Your task to perform on an android device: open app "LinkedIn" (install if not already installed) and go to login screen Image 0: 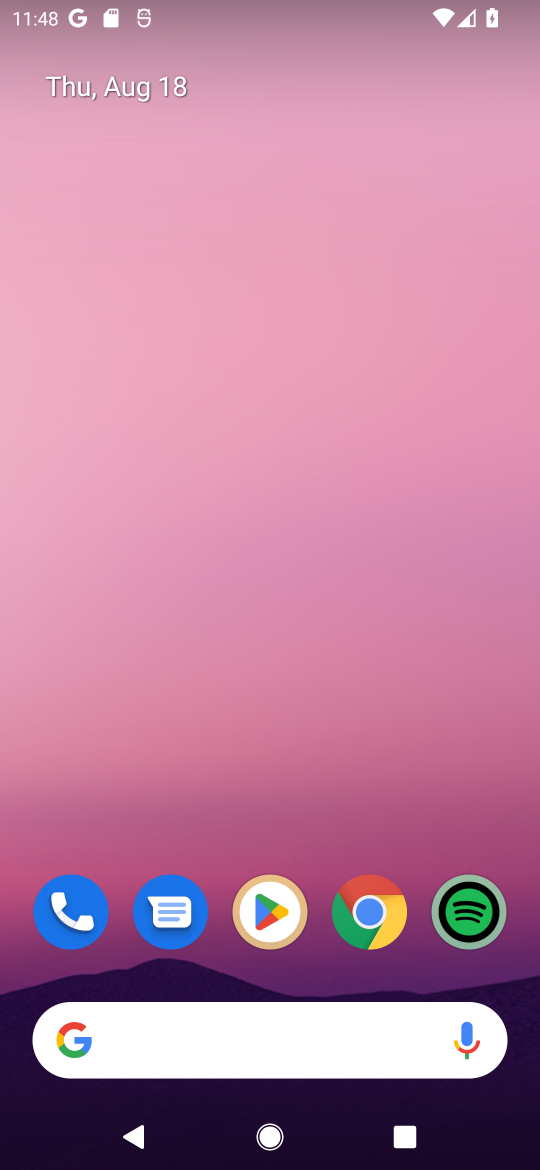
Step 0: click (275, 915)
Your task to perform on an android device: open app "LinkedIn" (install if not already installed) and go to login screen Image 1: 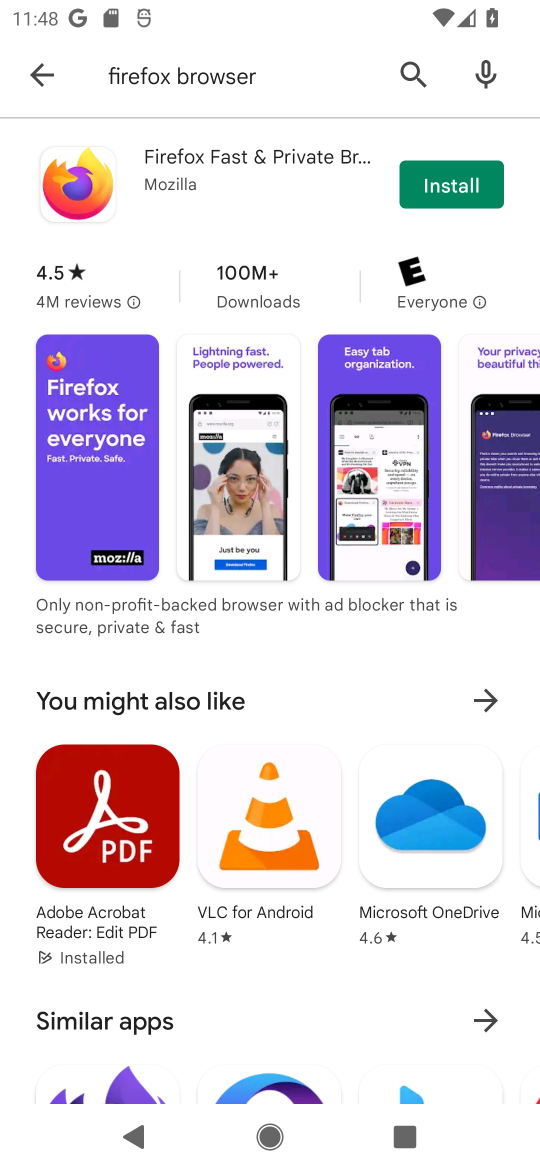
Step 1: click (394, 88)
Your task to perform on an android device: open app "LinkedIn" (install if not already installed) and go to login screen Image 2: 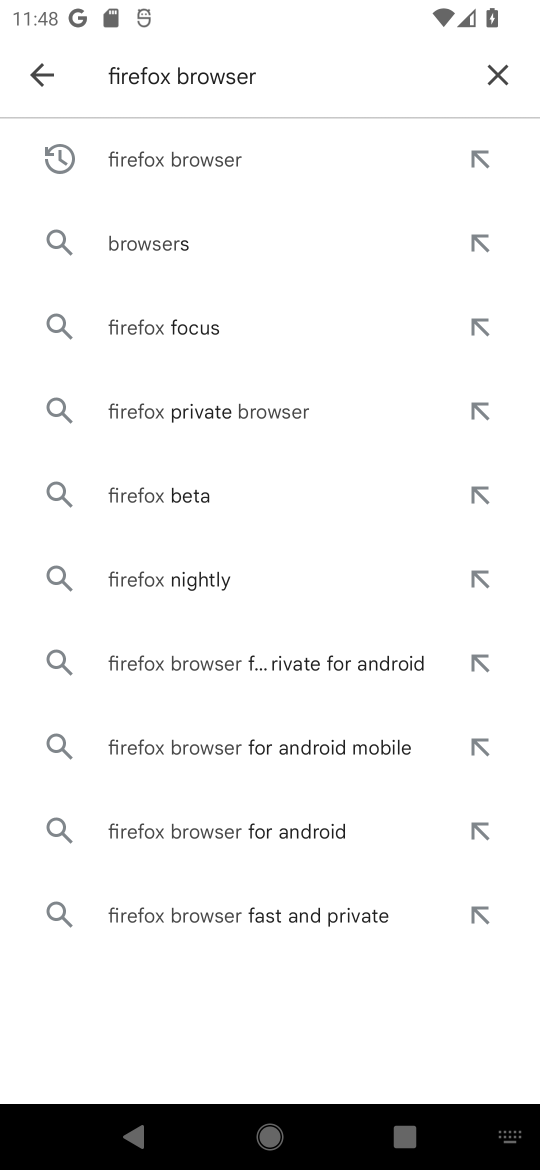
Step 2: click (482, 61)
Your task to perform on an android device: open app "LinkedIn" (install if not already installed) and go to login screen Image 3: 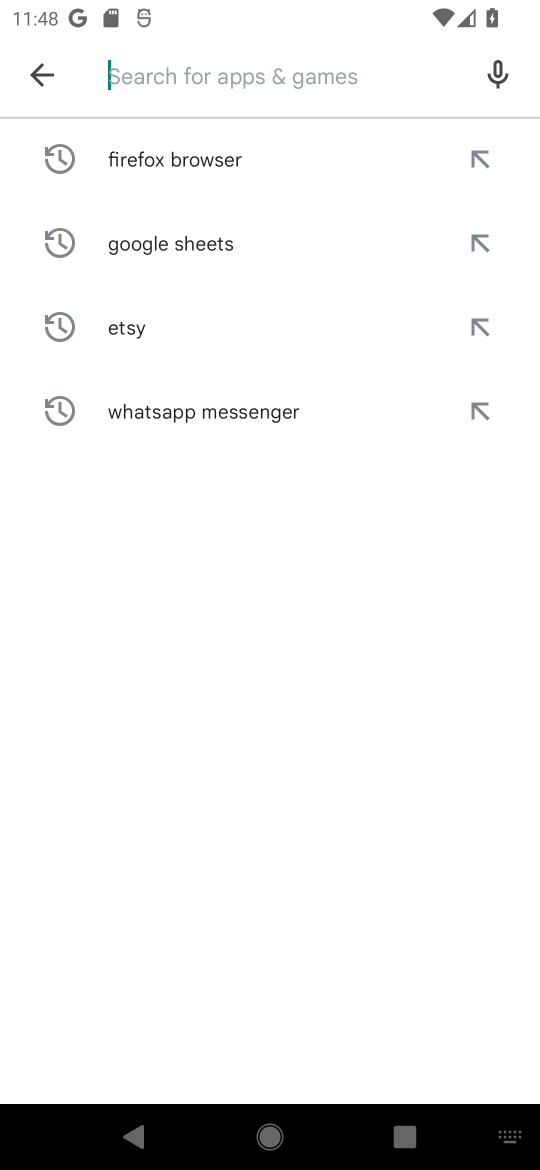
Step 3: click (153, 78)
Your task to perform on an android device: open app "LinkedIn" (install if not already installed) and go to login screen Image 4: 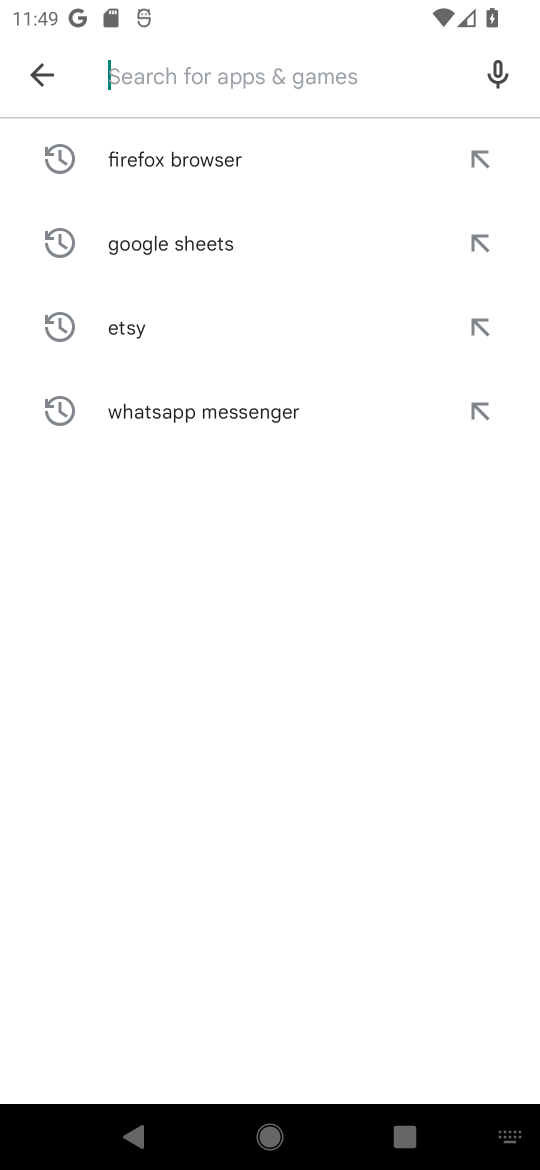
Step 4: type "linkedln"
Your task to perform on an android device: open app "LinkedIn" (install if not already installed) and go to login screen Image 5: 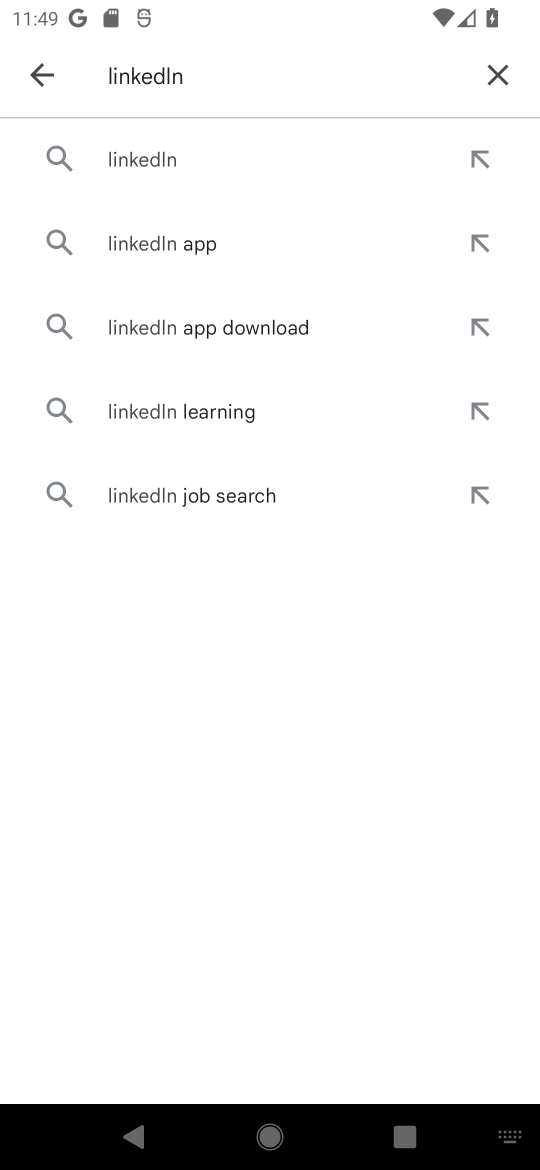
Step 5: click (157, 153)
Your task to perform on an android device: open app "LinkedIn" (install if not already installed) and go to login screen Image 6: 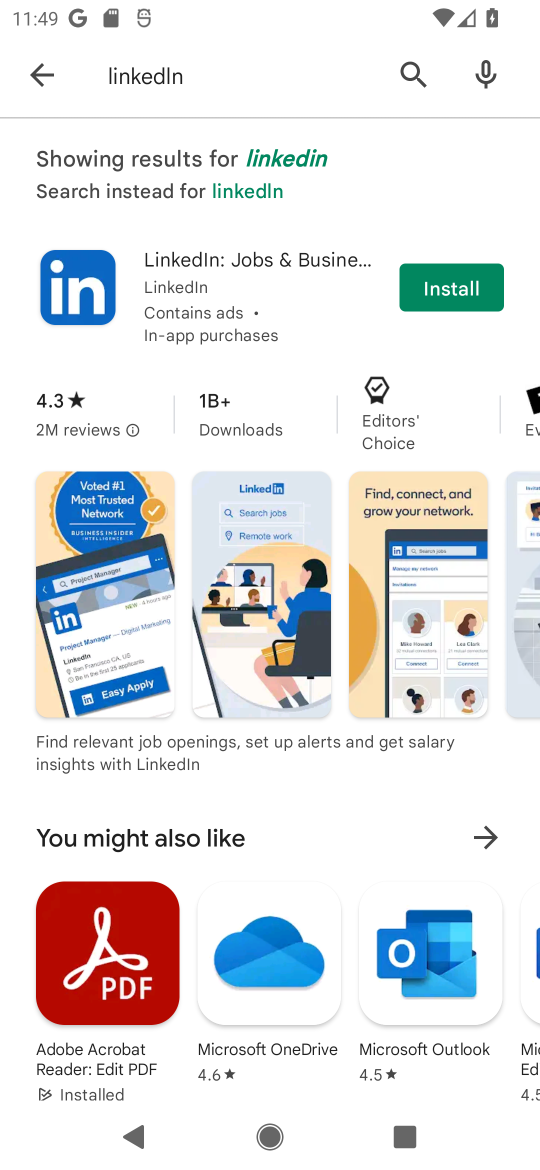
Step 6: click (478, 282)
Your task to perform on an android device: open app "LinkedIn" (install if not already installed) and go to login screen Image 7: 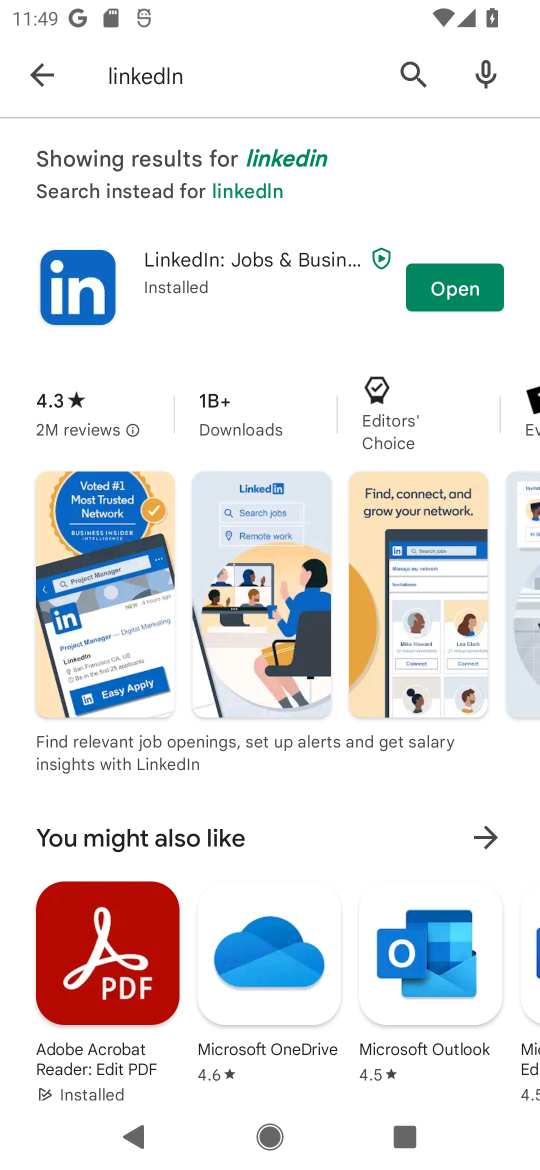
Step 7: click (469, 293)
Your task to perform on an android device: open app "LinkedIn" (install if not already installed) and go to login screen Image 8: 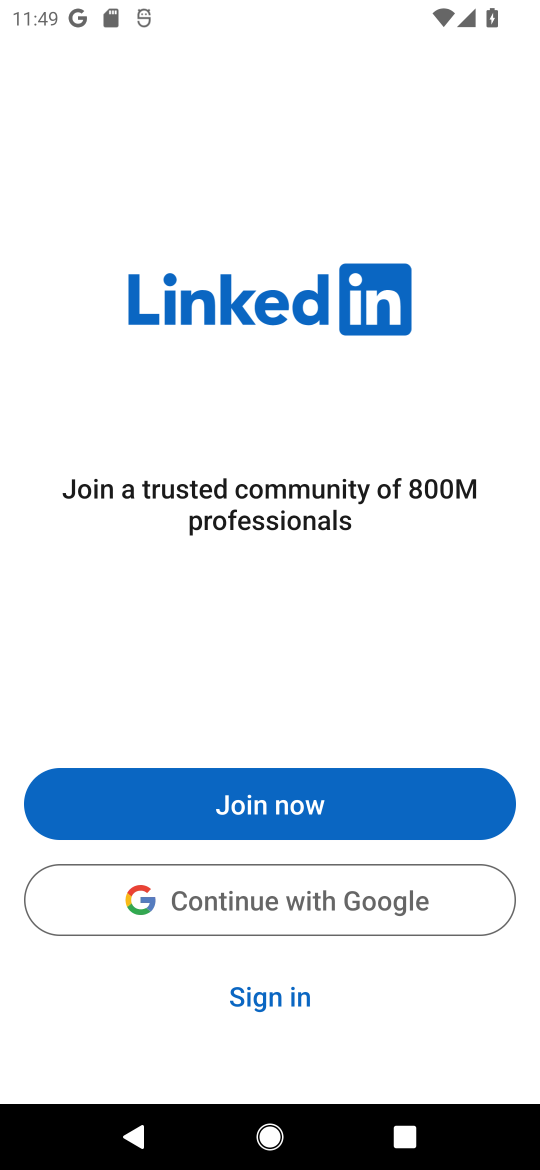
Step 8: click (274, 1006)
Your task to perform on an android device: open app "LinkedIn" (install if not already installed) and go to login screen Image 9: 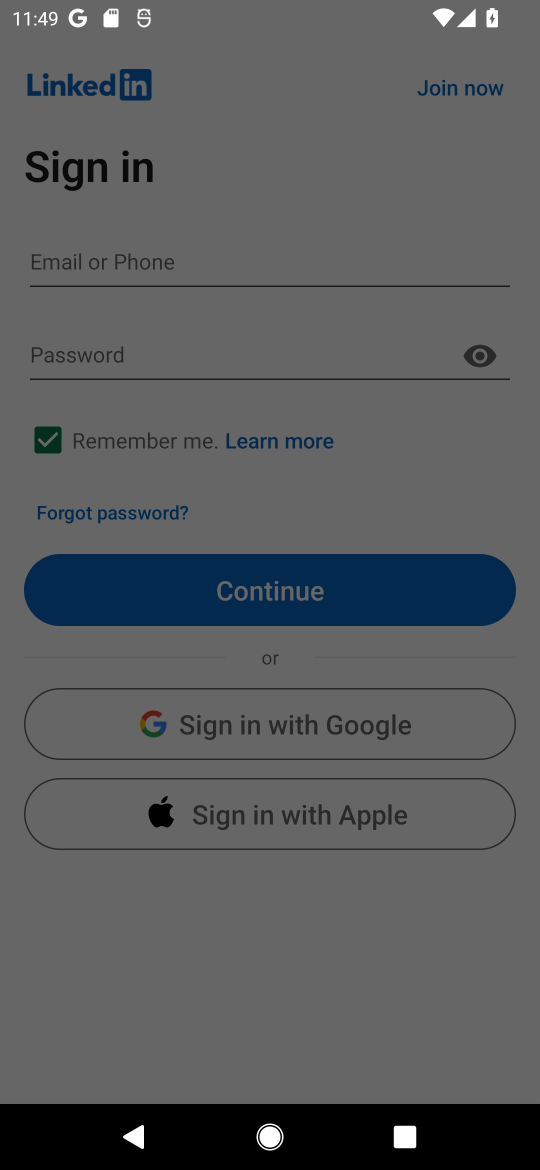
Step 9: task complete